Your task to perform on an android device: Open network settings Image 0: 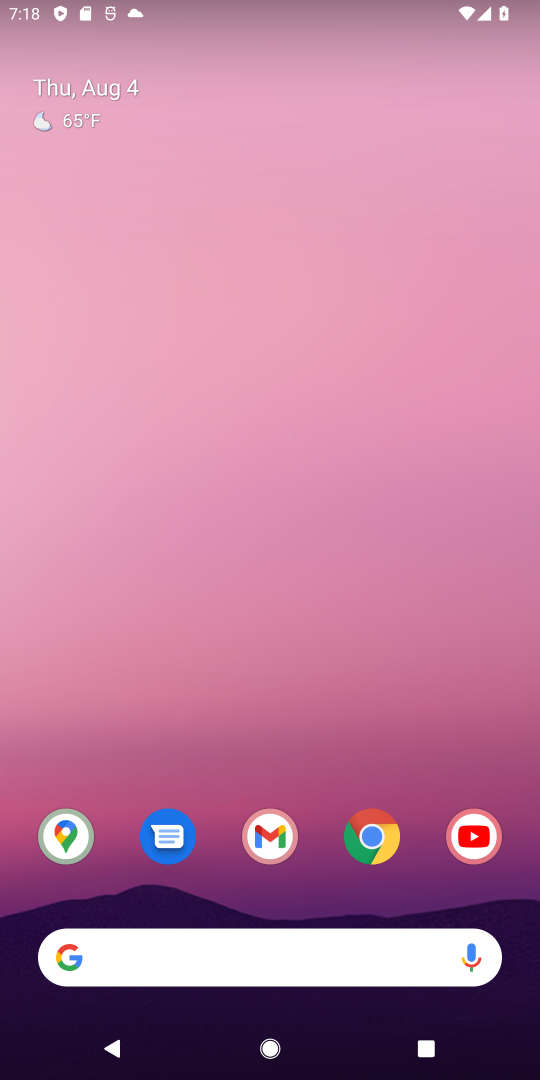
Step 0: drag from (160, 862) to (245, 105)
Your task to perform on an android device: Open network settings Image 1: 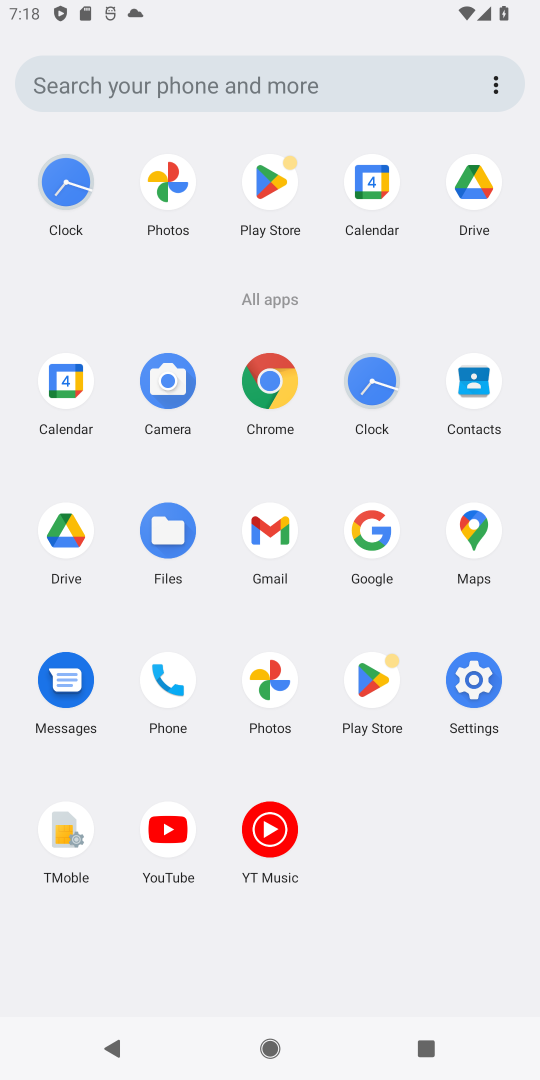
Step 1: click (454, 690)
Your task to perform on an android device: Open network settings Image 2: 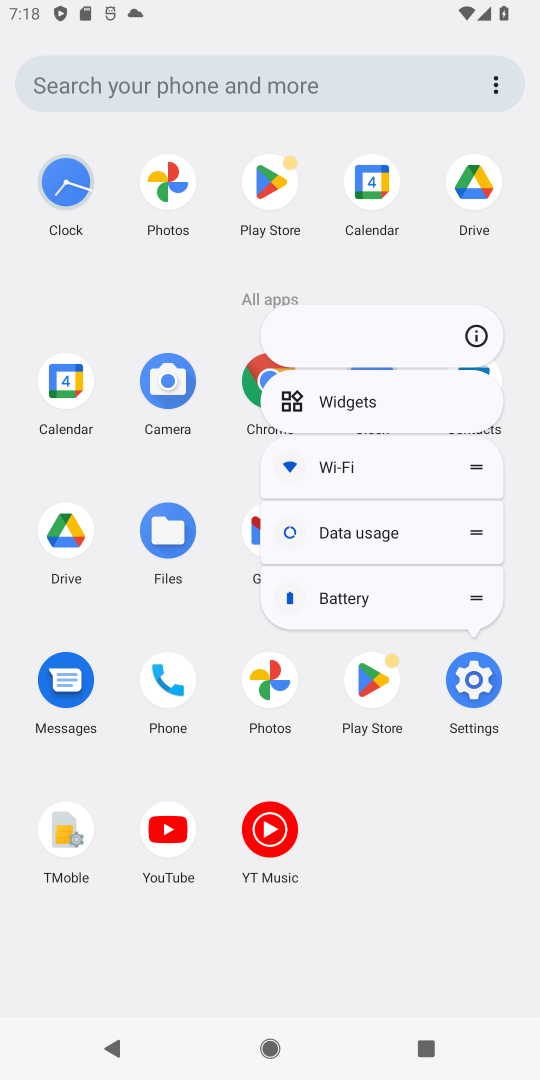
Step 2: click (470, 665)
Your task to perform on an android device: Open network settings Image 3: 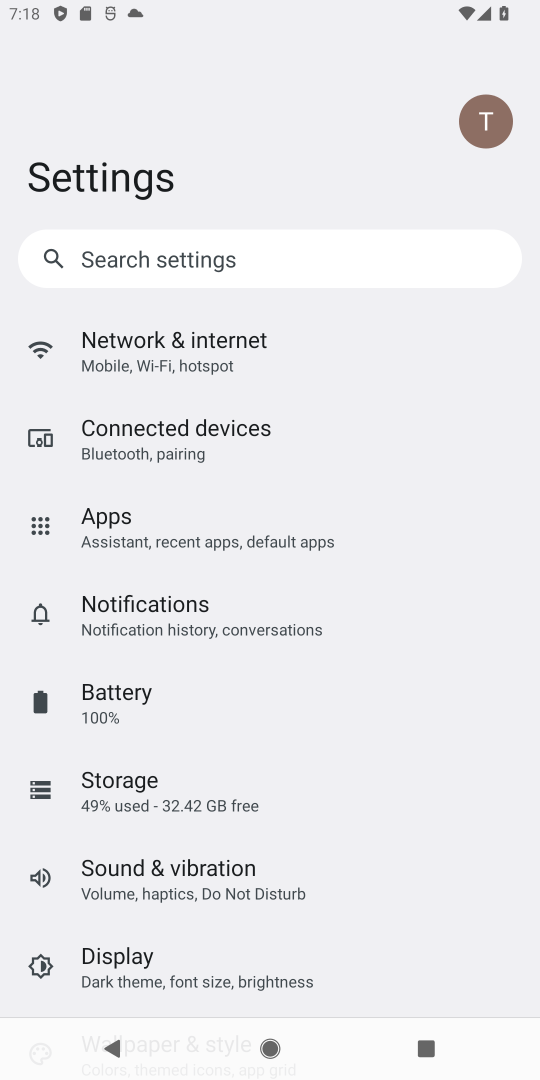
Step 3: click (166, 337)
Your task to perform on an android device: Open network settings Image 4: 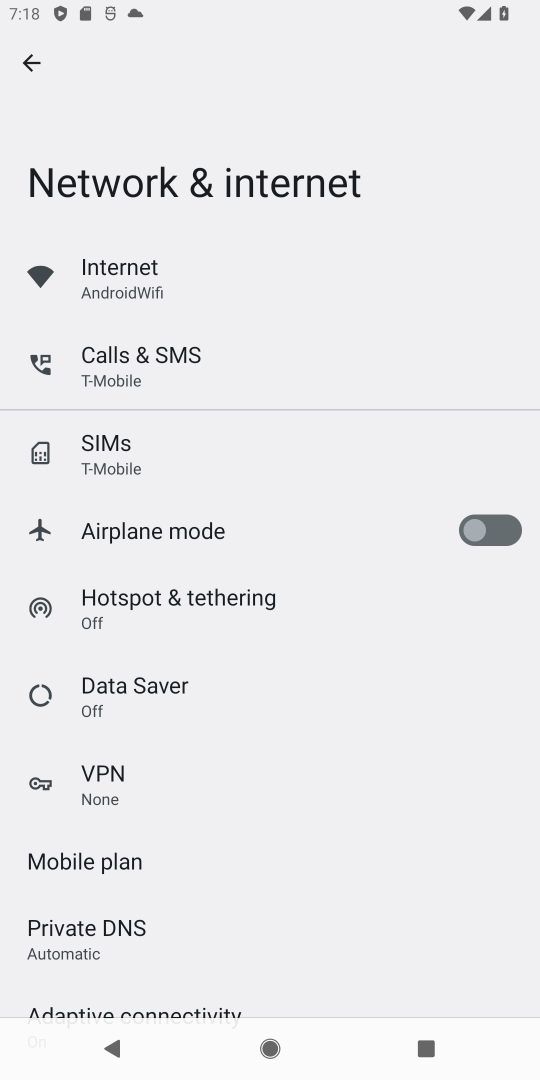
Step 4: task complete